Your task to perform on an android device: change the clock display to show seconds Image 0: 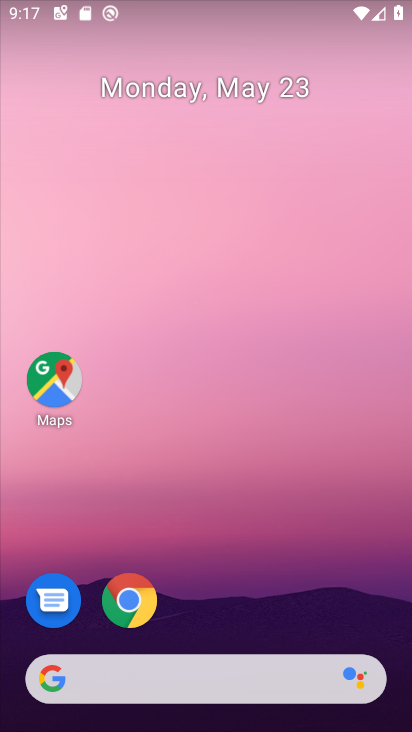
Step 0: drag from (207, 727) to (188, 143)
Your task to perform on an android device: change the clock display to show seconds Image 1: 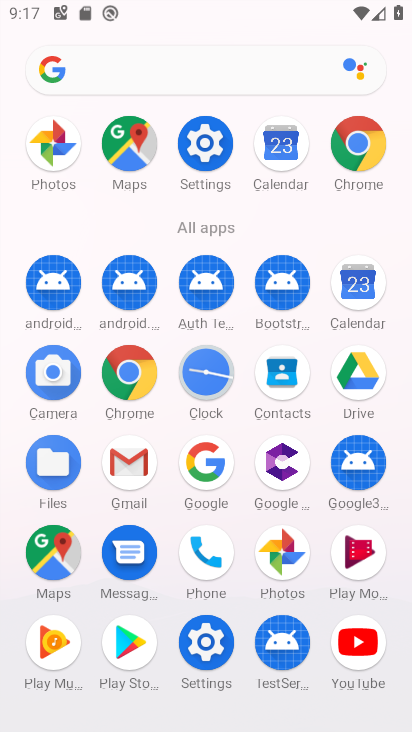
Step 1: click (207, 376)
Your task to perform on an android device: change the clock display to show seconds Image 2: 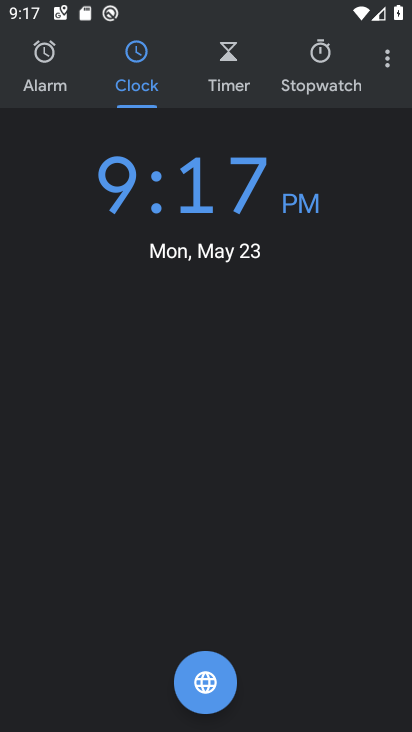
Step 2: click (388, 69)
Your task to perform on an android device: change the clock display to show seconds Image 3: 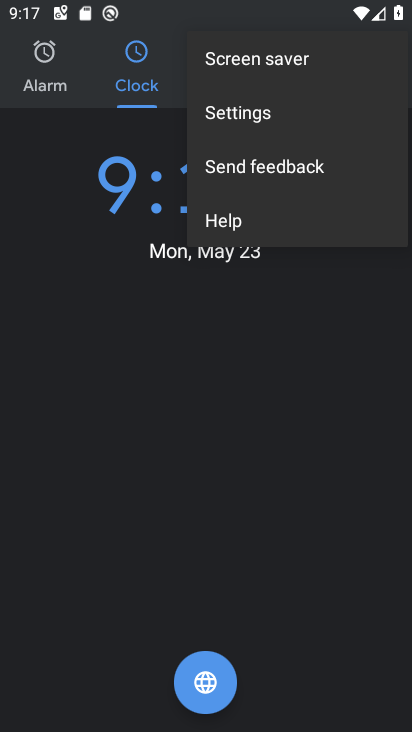
Step 3: click (255, 113)
Your task to perform on an android device: change the clock display to show seconds Image 4: 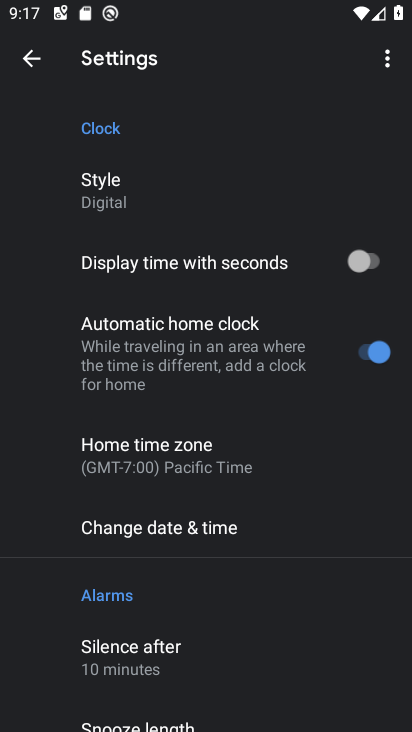
Step 4: click (375, 257)
Your task to perform on an android device: change the clock display to show seconds Image 5: 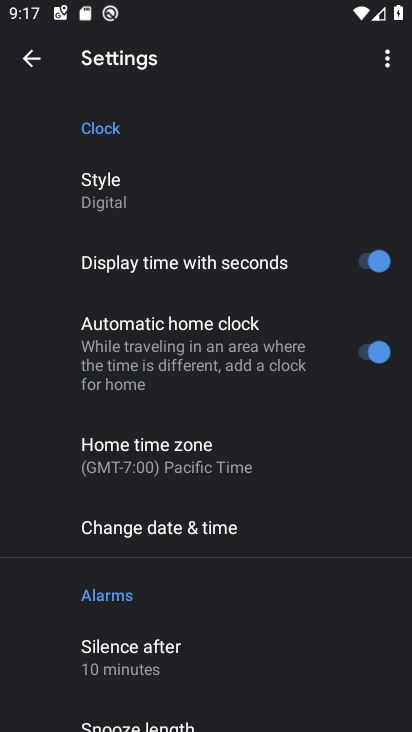
Step 5: task complete